Your task to perform on an android device: Is it going to rain tomorrow? Image 0: 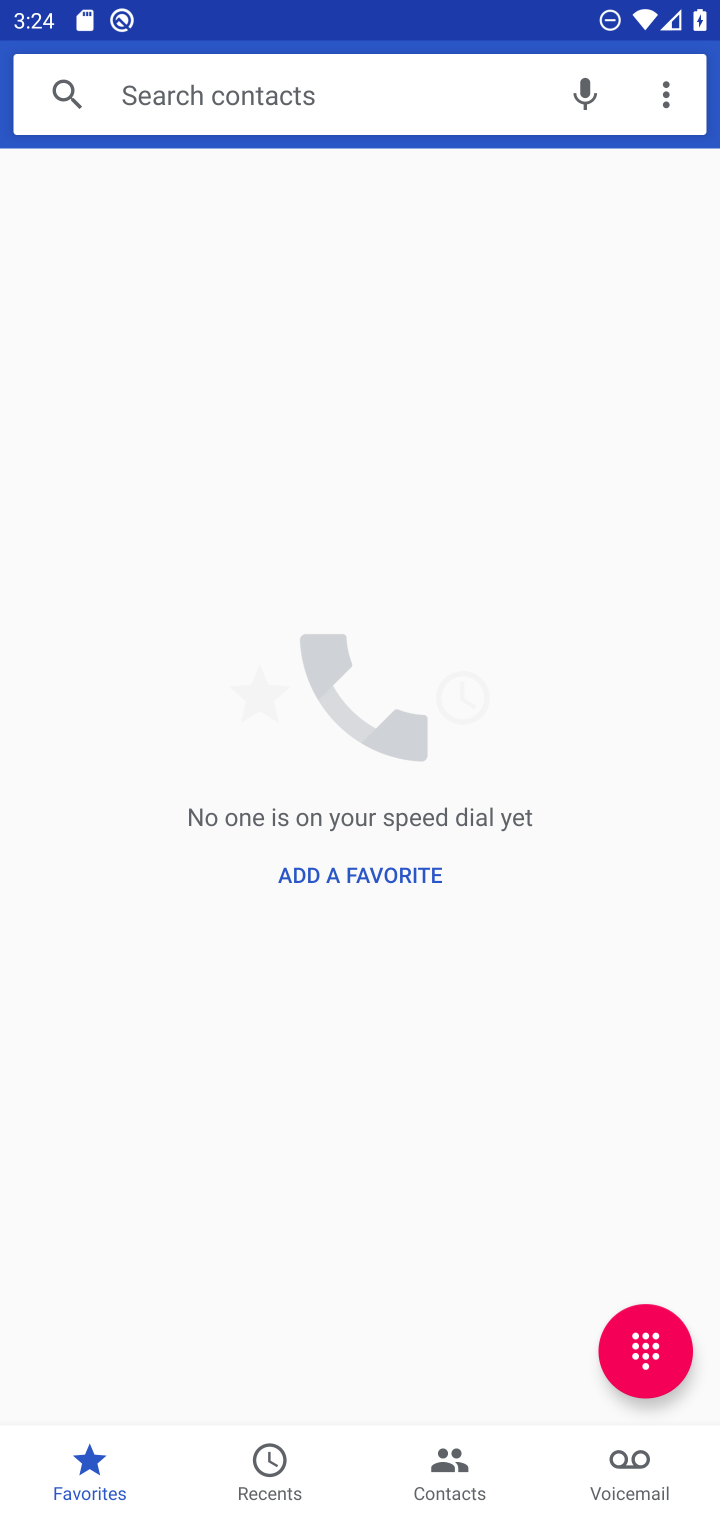
Step 0: press home button
Your task to perform on an android device: Is it going to rain tomorrow? Image 1: 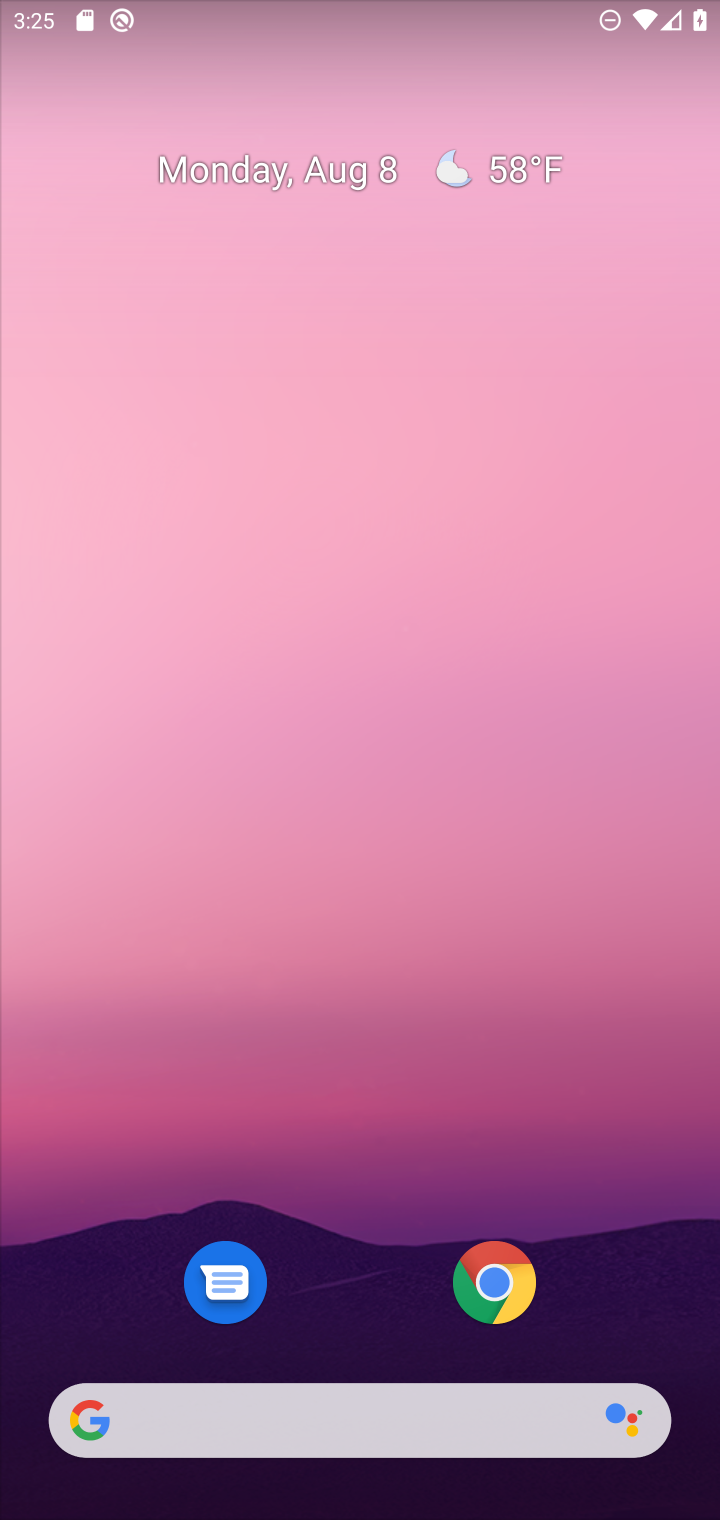
Step 1: drag from (357, 1276) to (491, 239)
Your task to perform on an android device: Is it going to rain tomorrow? Image 2: 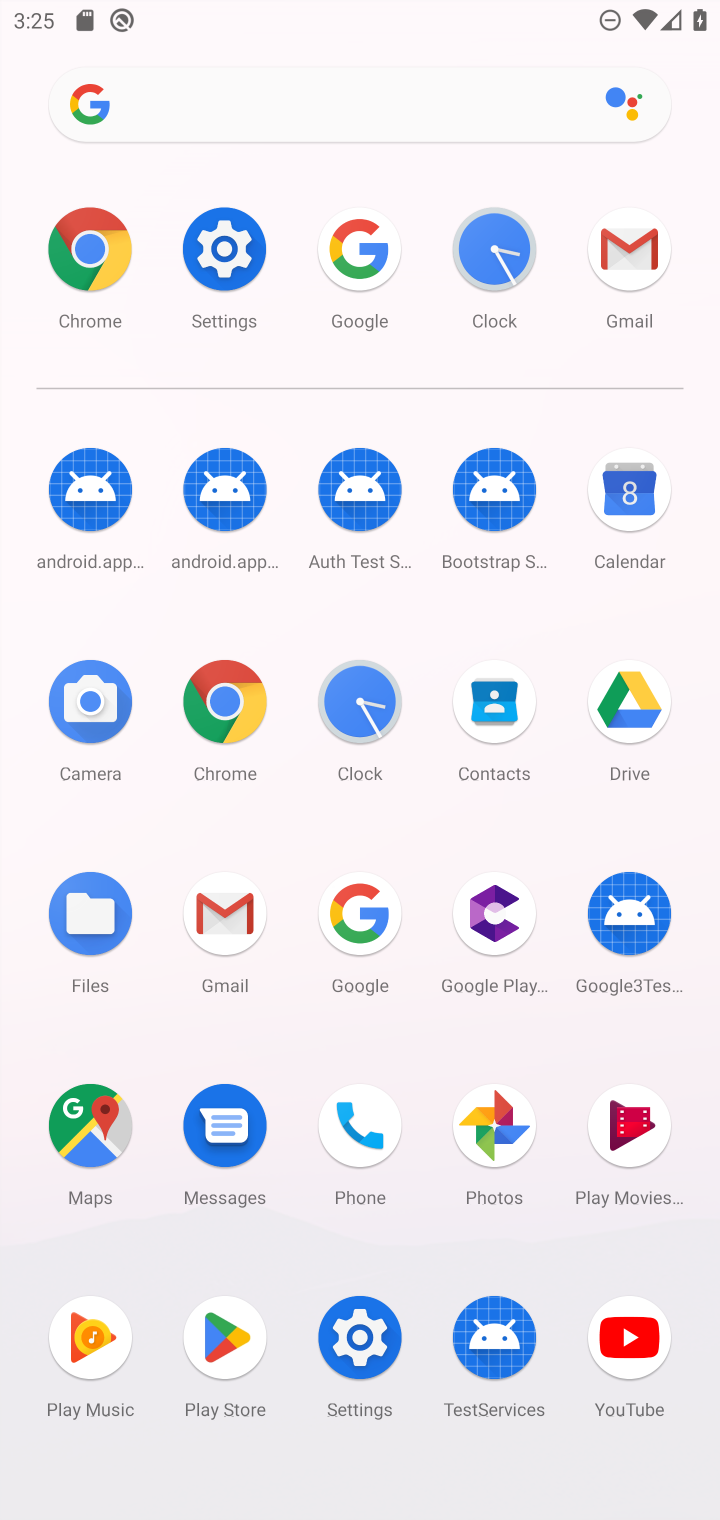
Step 2: click (224, 688)
Your task to perform on an android device: Is it going to rain tomorrow? Image 3: 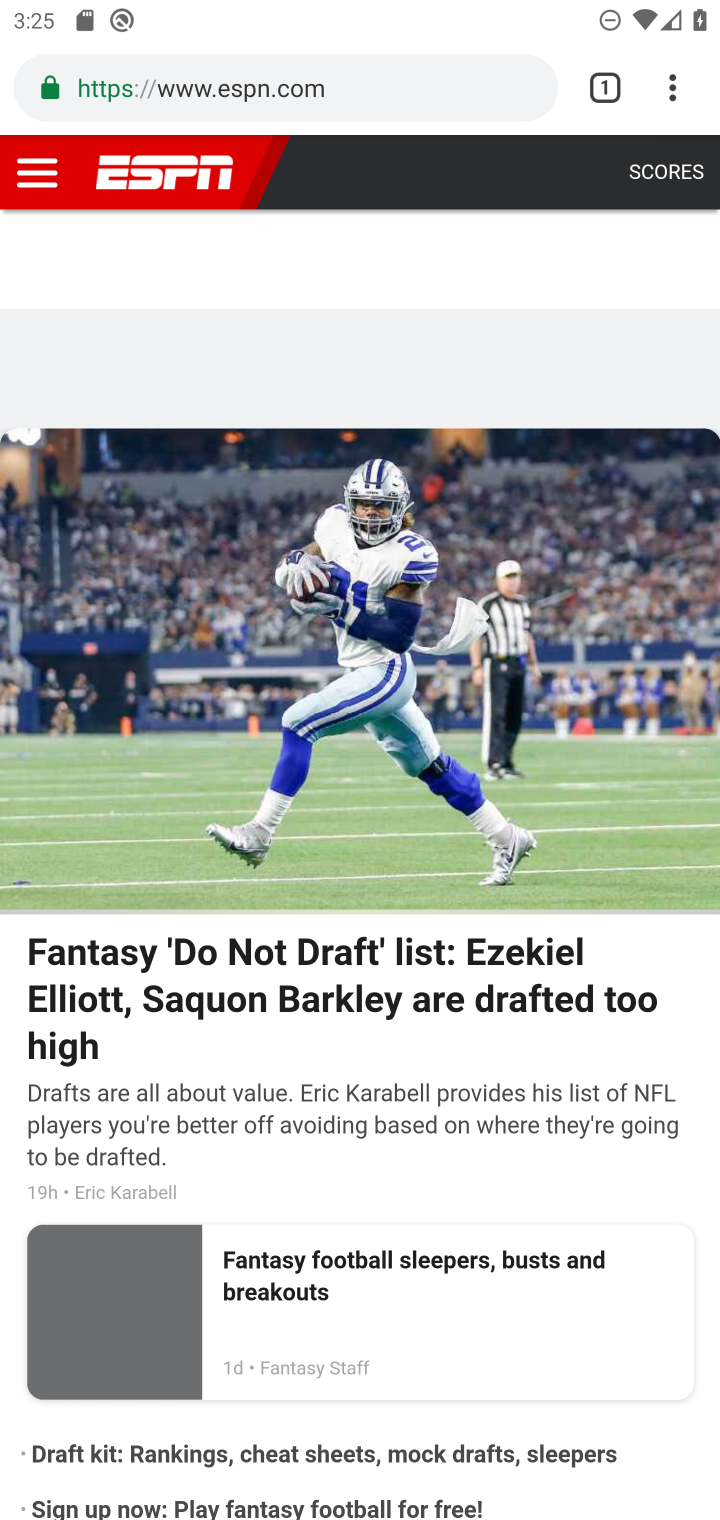
Step 3: click (371, 77)
Your task to perform on an android device: Is it going to rain tomorrow? Image 4: 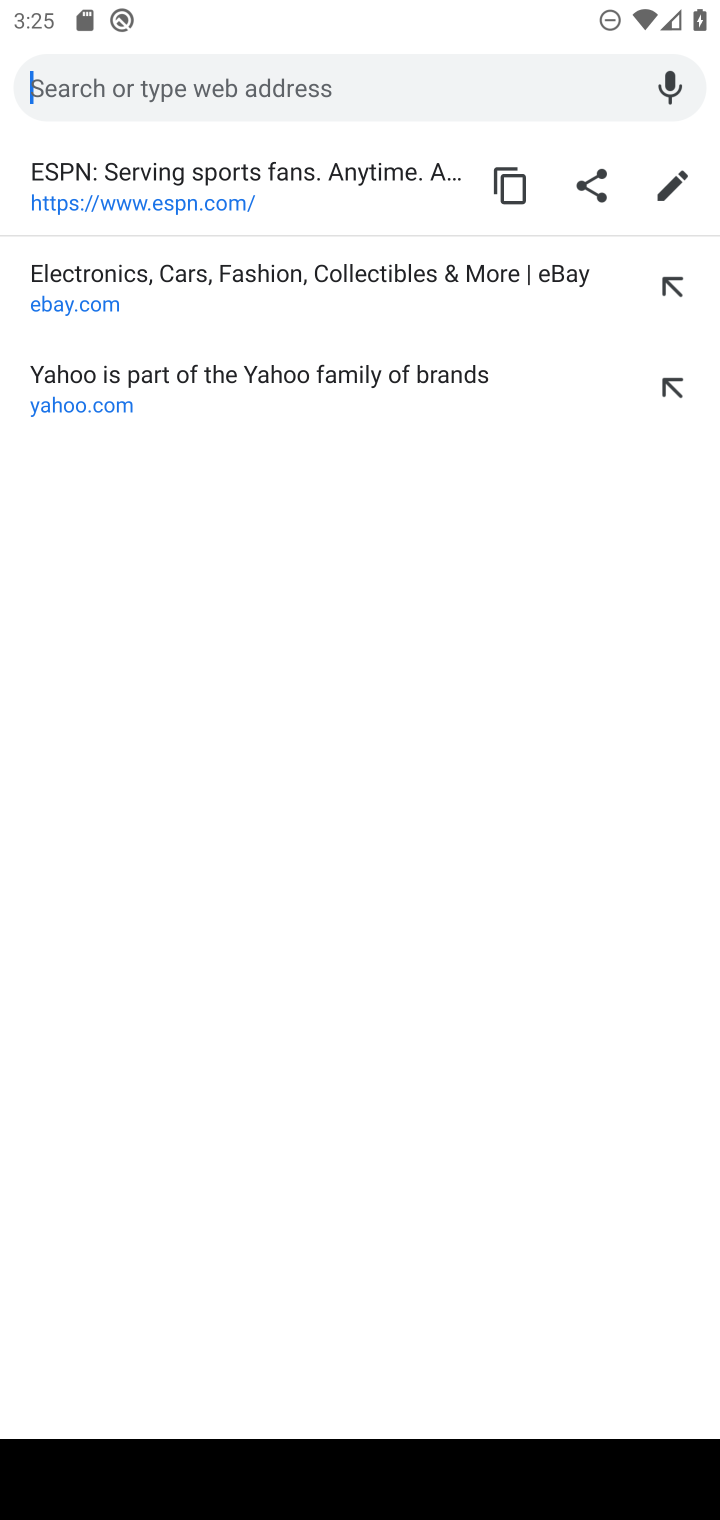
Step 4: type "weather"
Your task to perform on an android device: Is it going to rain tomorrow? Image 5: 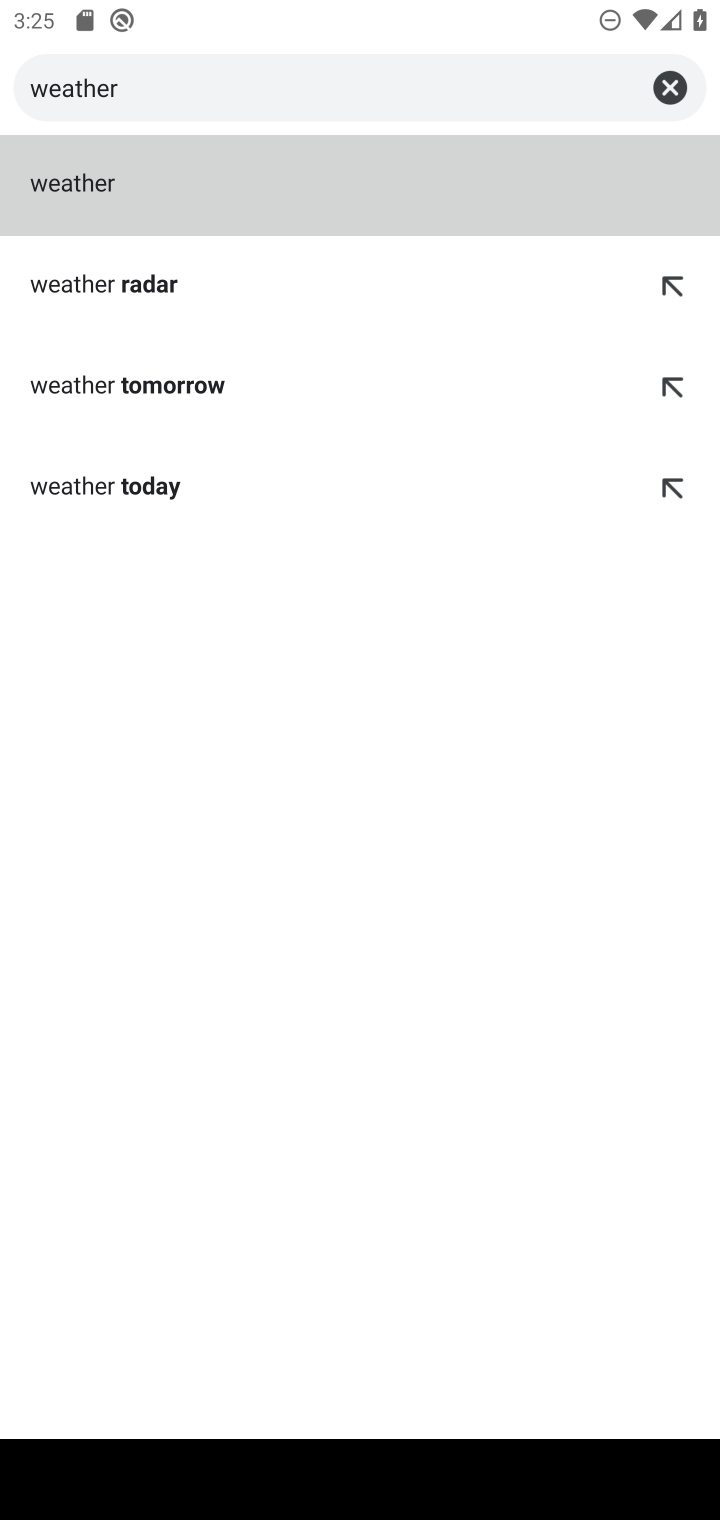
Step 5: click (140, 155)
Your task to perform on an android device: Is it going to rain tomorrow? Image 6: 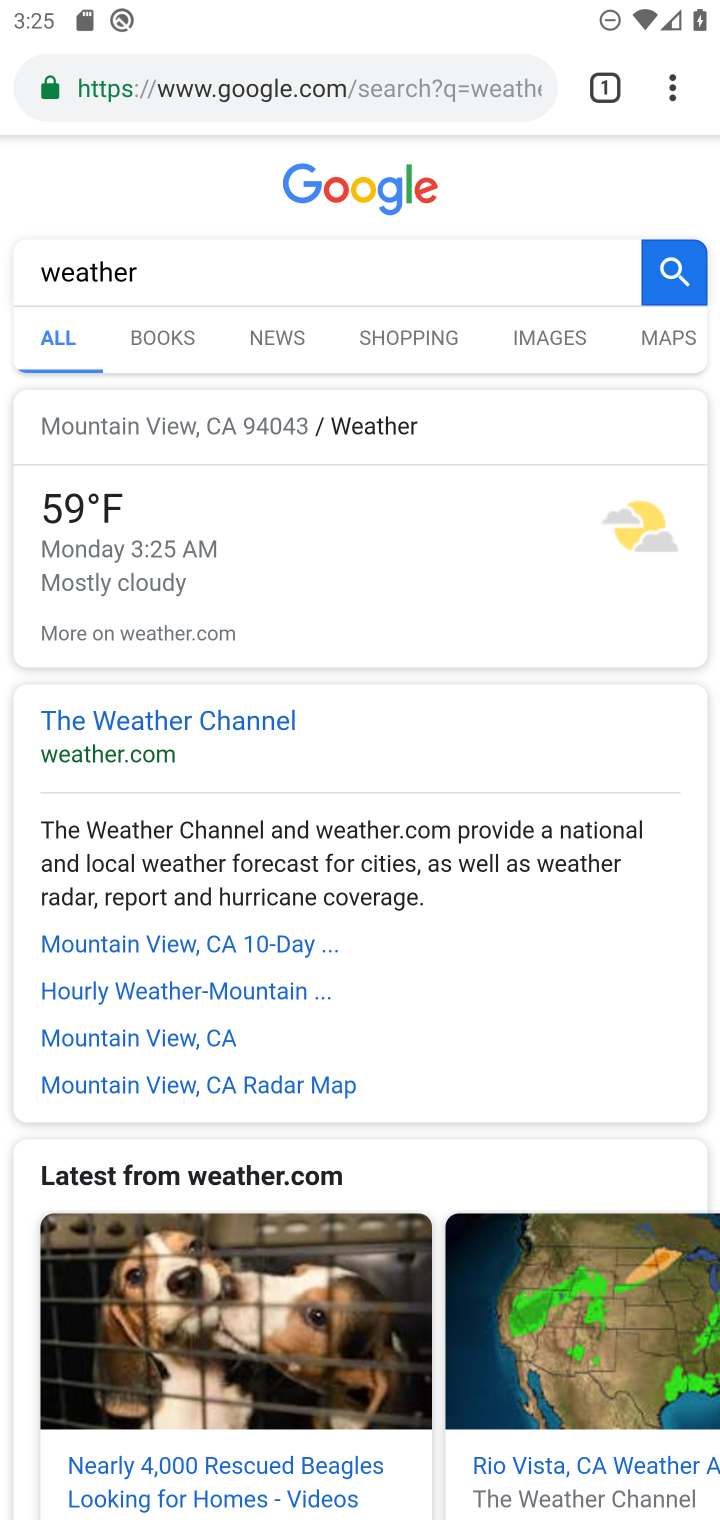
Step 6: click (326, 269)
Your task to perform on an android device: Is it going to rain tomorrow? Image 7: 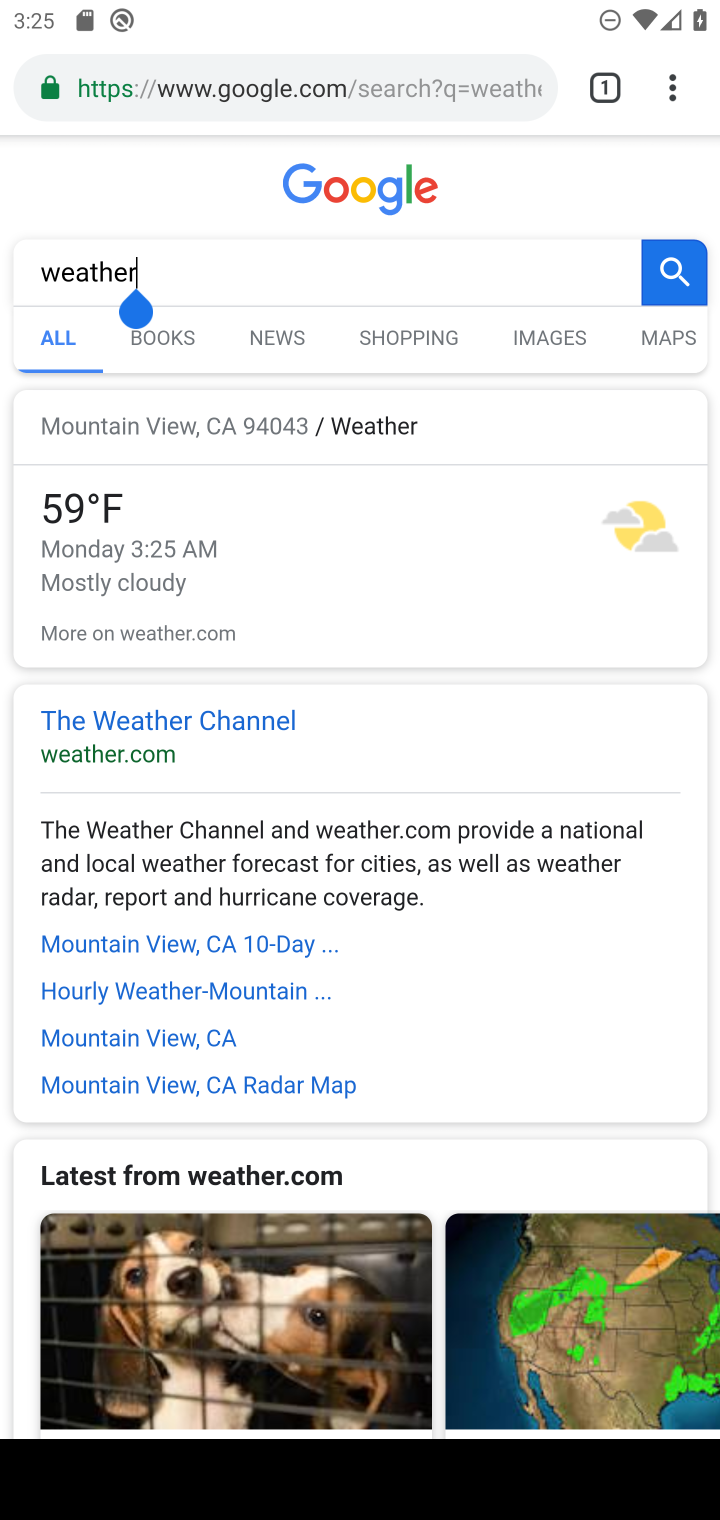
Step 7: type " tommorow"
Your task to perform on an android device: Is it going to rain tomorrow? Image 8: 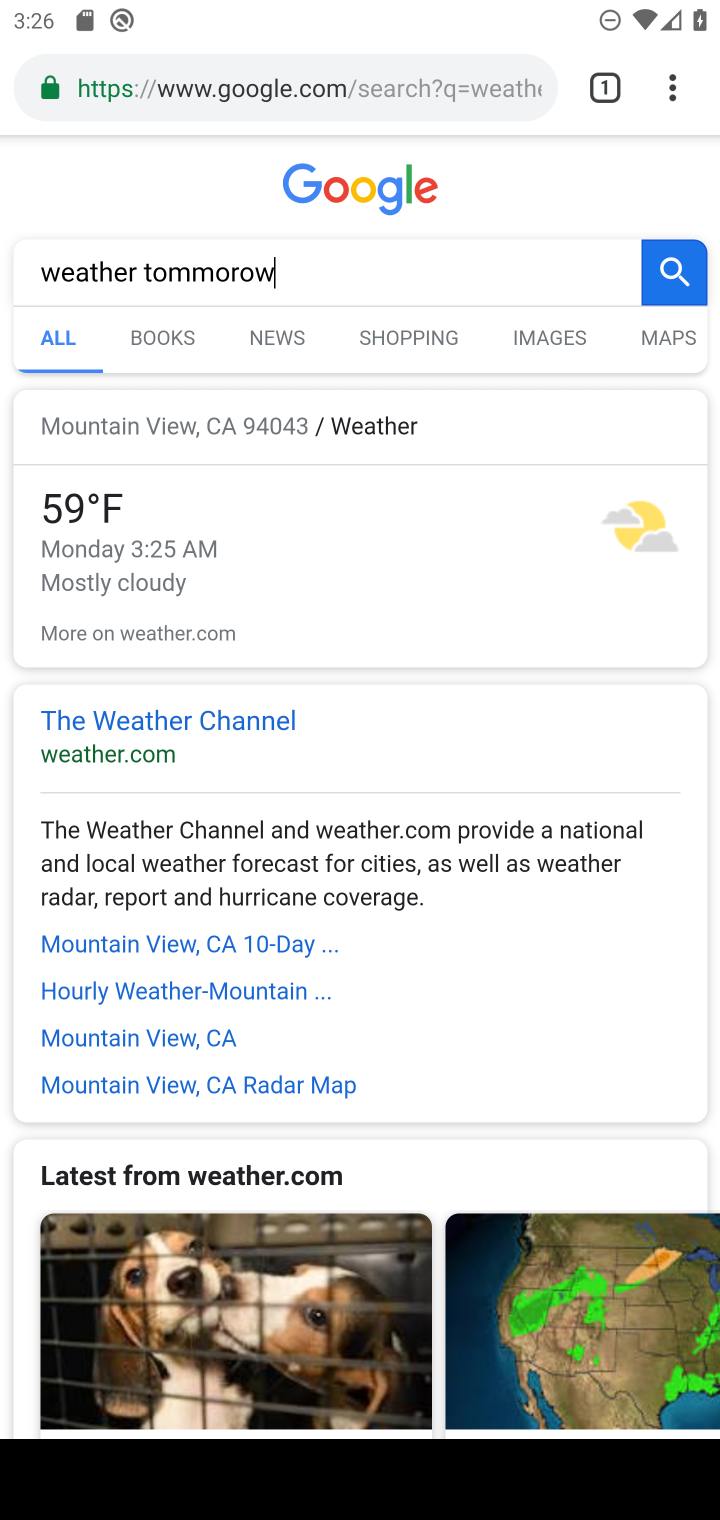
Step 8: click (661, 264)
Your task to perform on an android device: Is it going to rain tomorrow? Image 9: 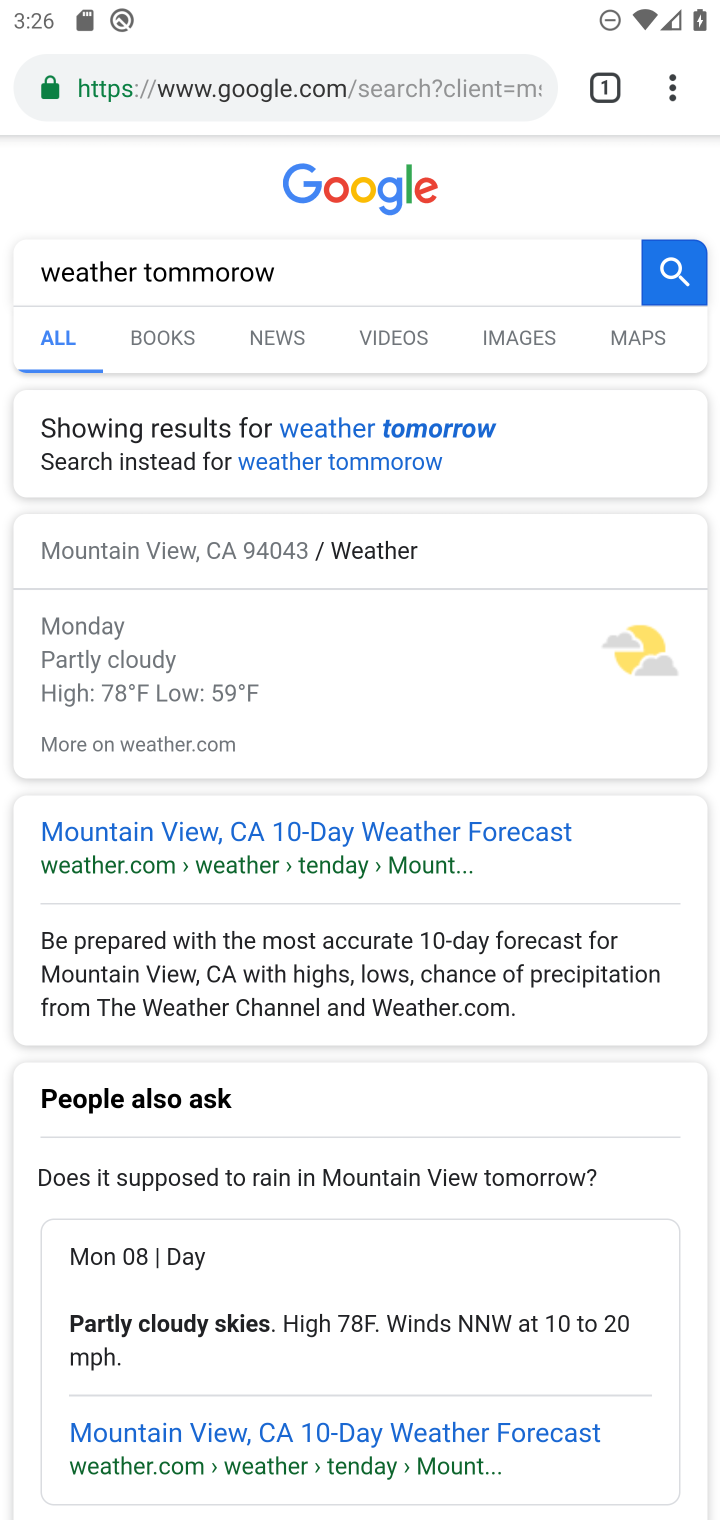
Step 9: click (436, 417)
Your task to perform on an android device: Is it going to rain tomorrow? Image 10: 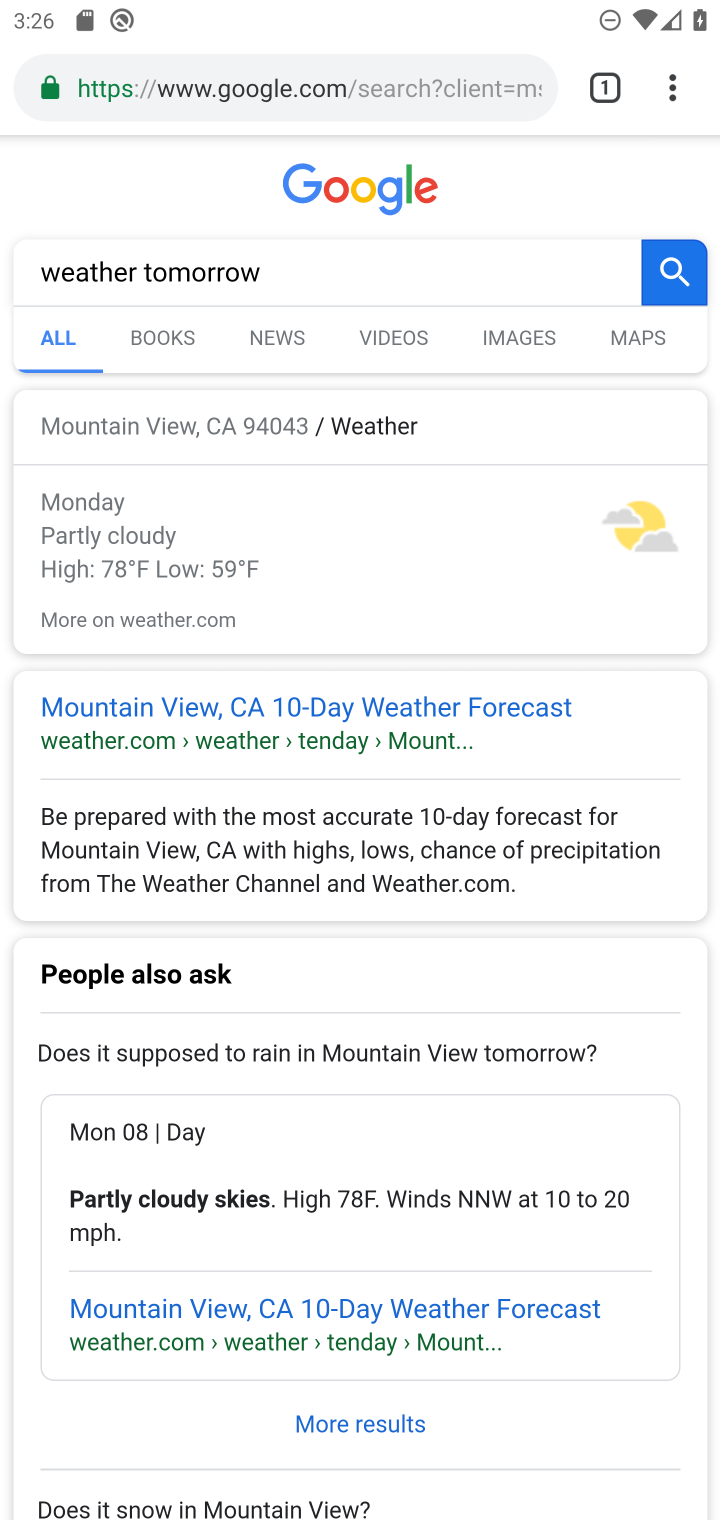
Step 10: press home button
Your task to perform on an android device: Is it going to rain tomorrow? Image 11: 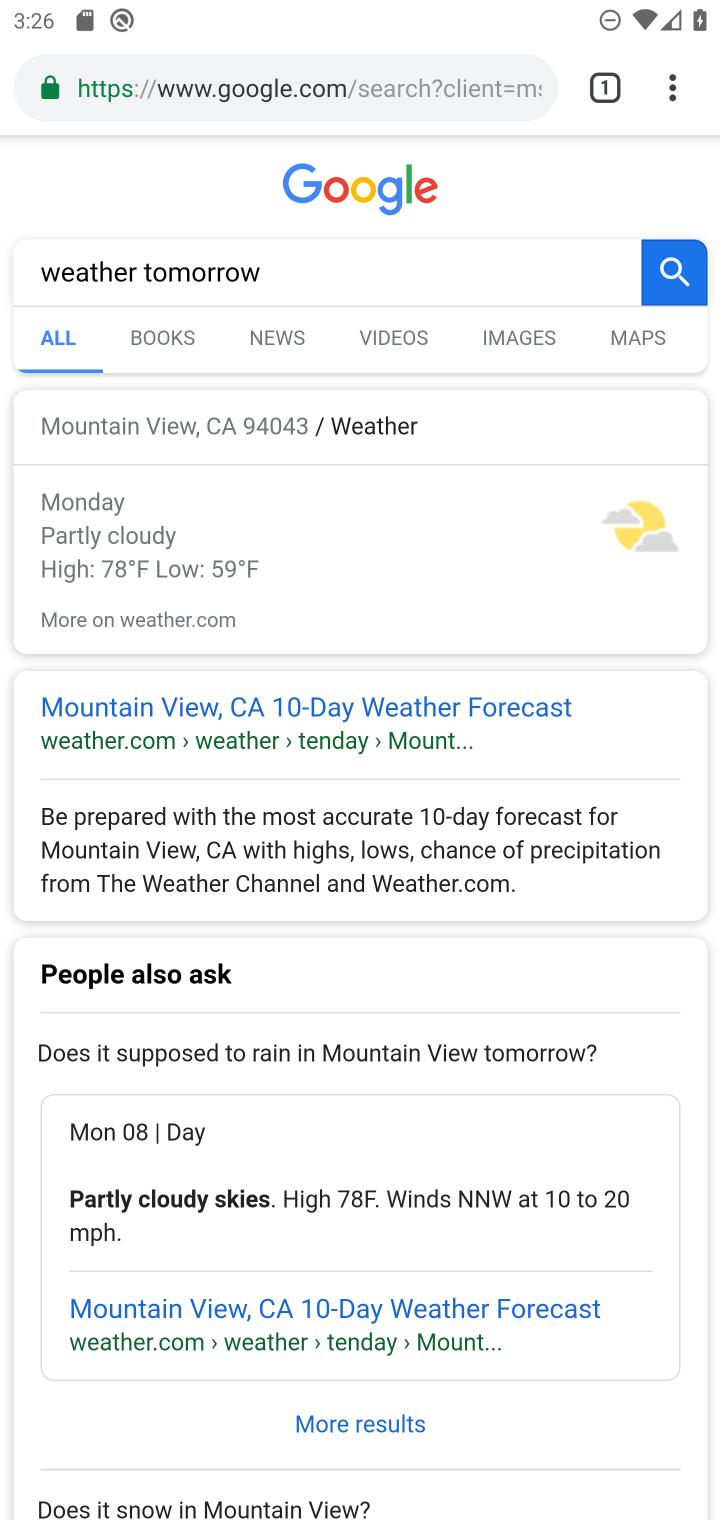
Step 11: press home button
Your task to perform on an android device: Is it going to rain tomorrow? Image 12: 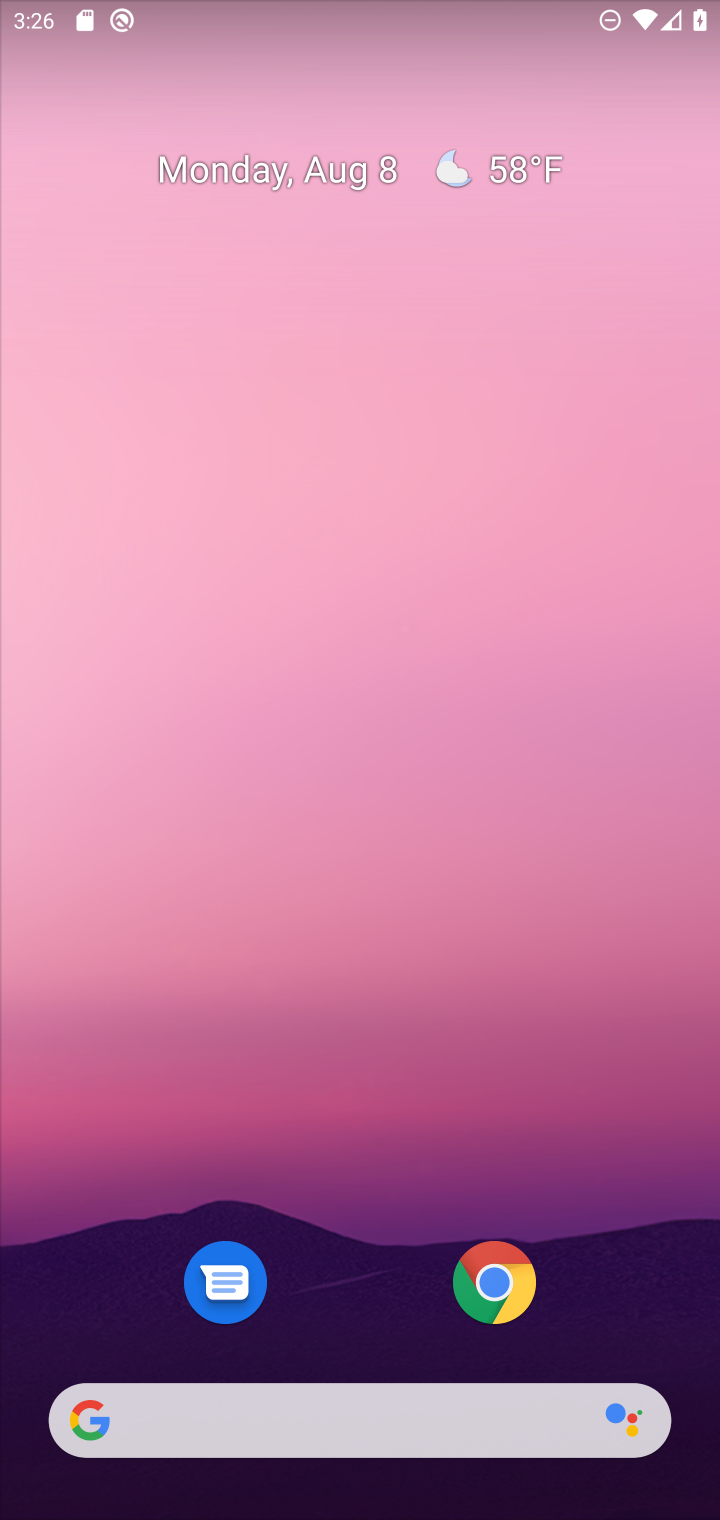
Step 12: click (503, 152)
Your task to perform on an android device: Is it going to rain tomorrow? Image 13: 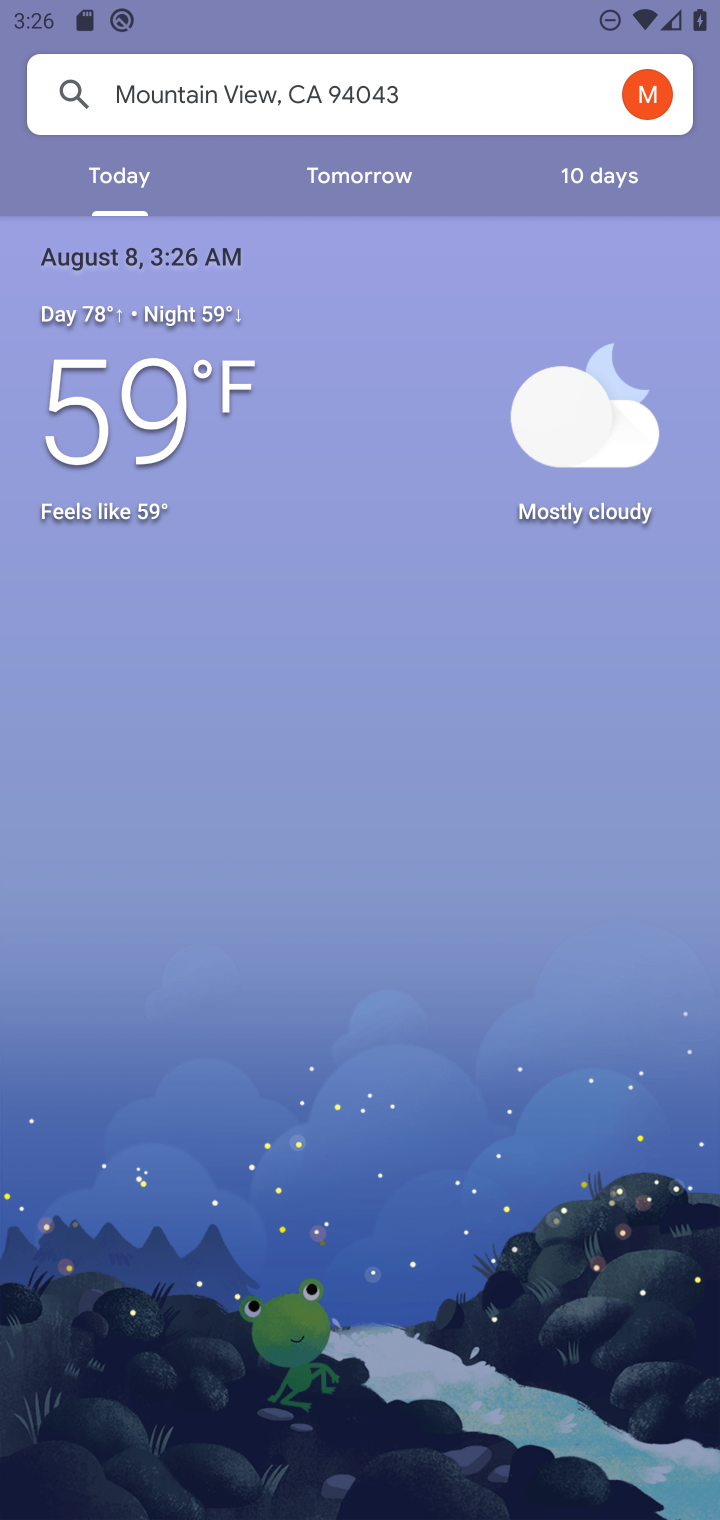
Step 13: click (377, 162)
Your task to perform on an android device: Is it going to rain tomorrow? Image 14: 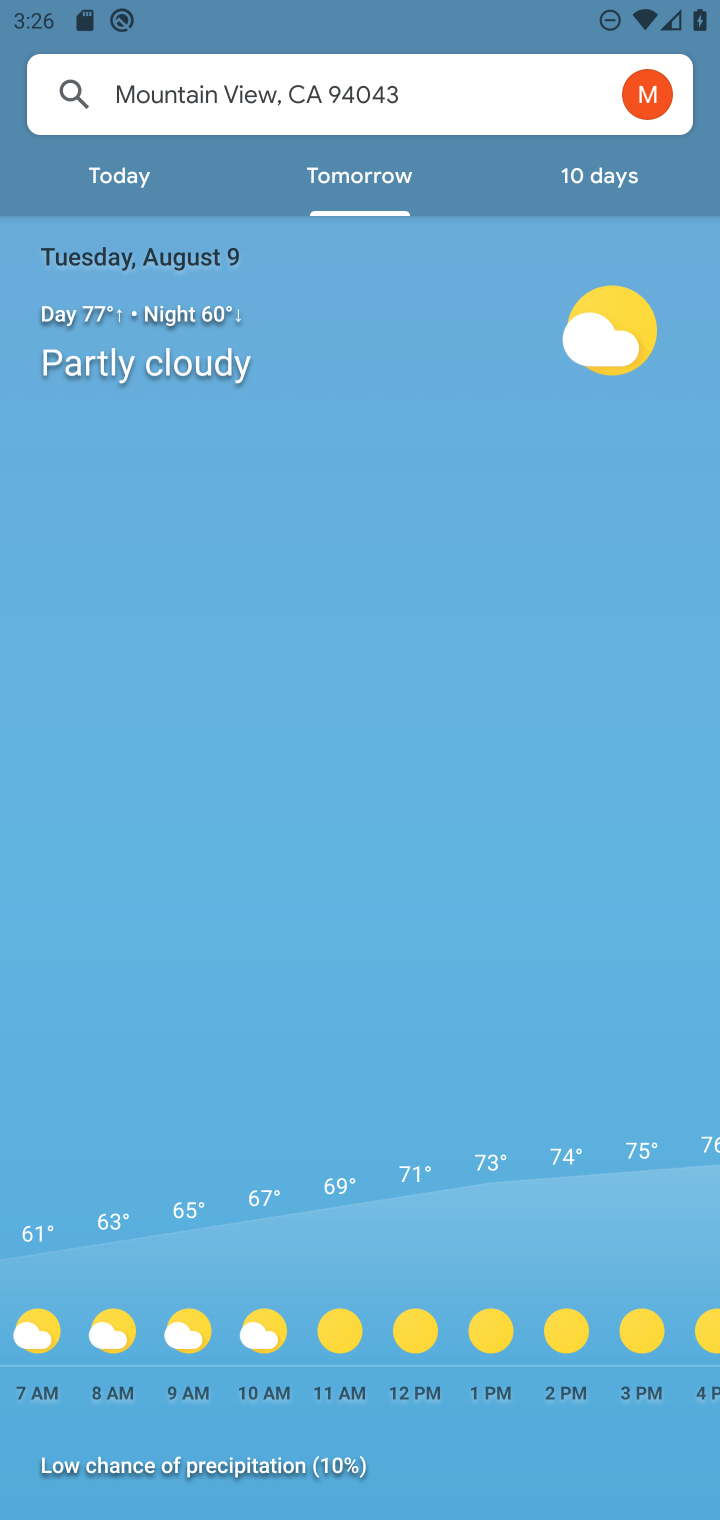
Step 14: task complete